Your task to perform on an android device: turn off notifications settings in the gmail app Image 0: 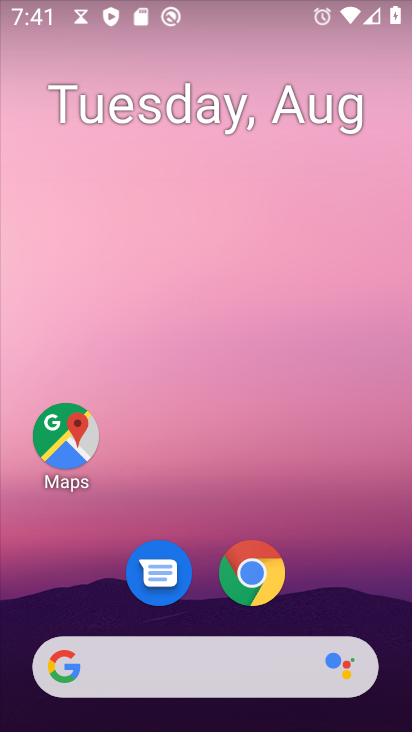
Step 0: press home button
Your task to perform on an android device: turn off notifications settings in the gmail app Image 1: 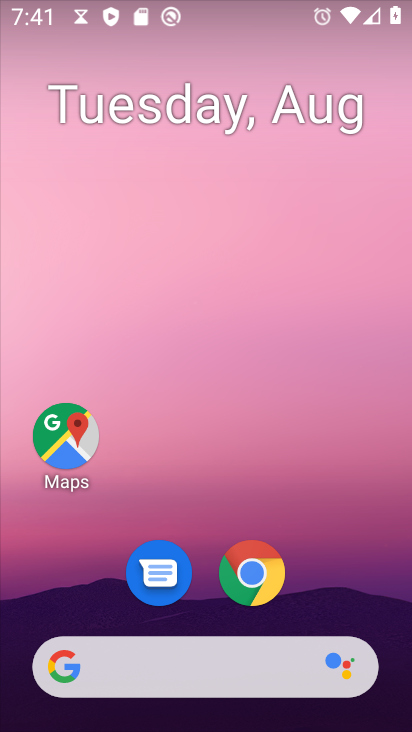
Step 1: drag from (210, 614) to (272, 36)
Your task to perform on an android device: turn off notifications settings in the gmail app Image 2: 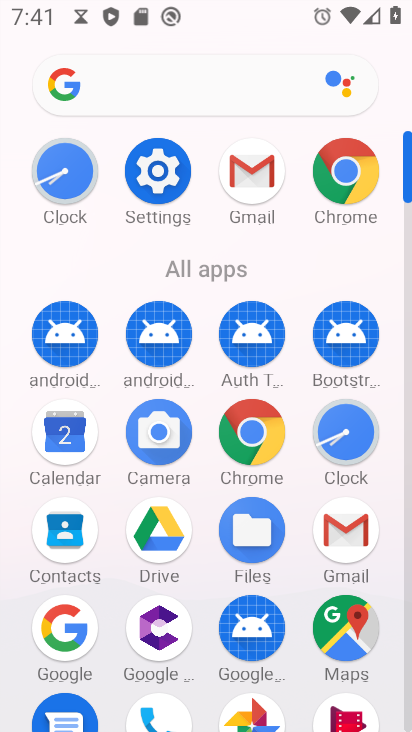
Step 2: click (249, 163)
Your task to perform on an android device: turn off notifications settings in the gmail app Image 3: 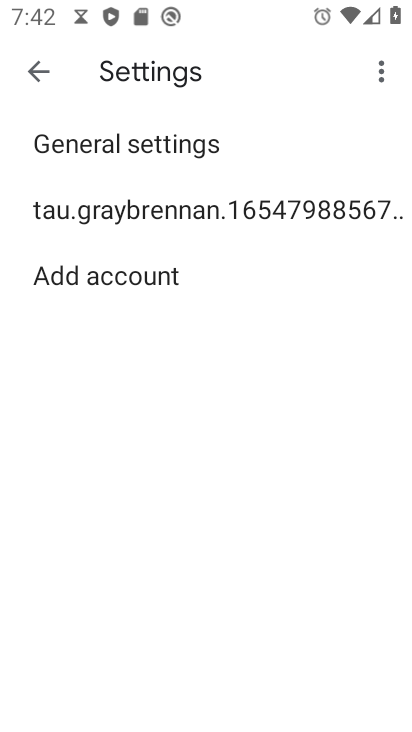
Step 3: click (143, 133)
Your task to perform on an android device: turn off notifications settings in the gmail app Image 4: 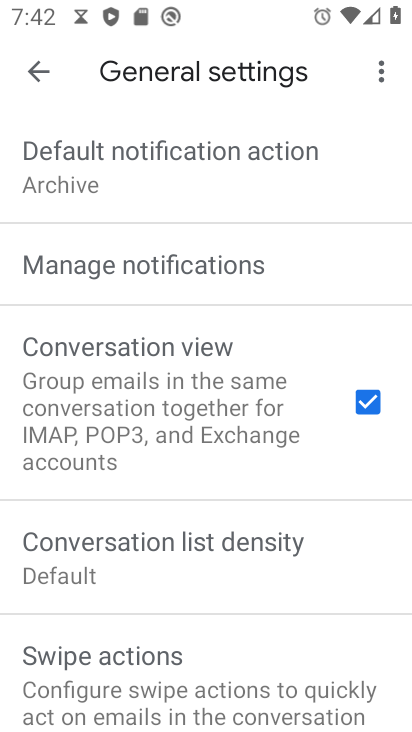
Step 4: click (170, 269)
Your task to perform on an android device: turn off notifications settings in the gmail app Image 5: 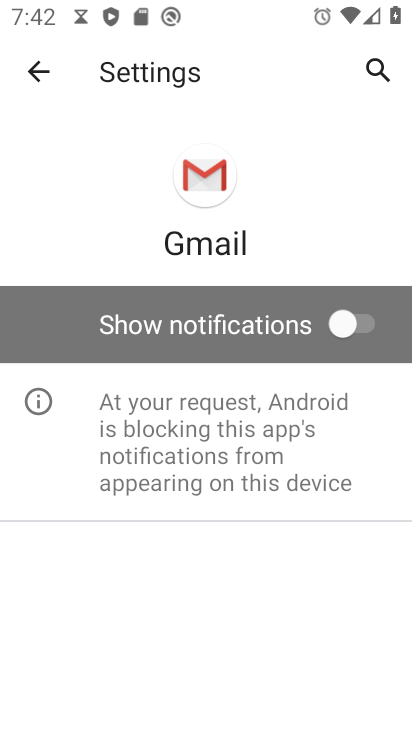
Step 5: task complete